Your task to perform on an android device: see sites visited before in the chrome app Image 0: 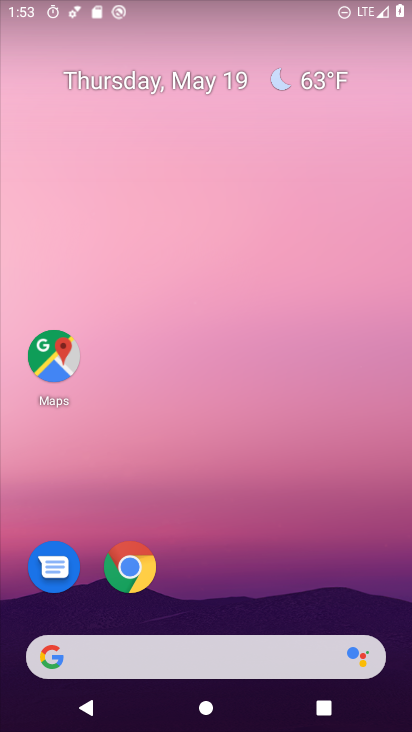
Step 0: press home button
Your task to perform on an android device: see sites visited before in the chrome app Image 1: 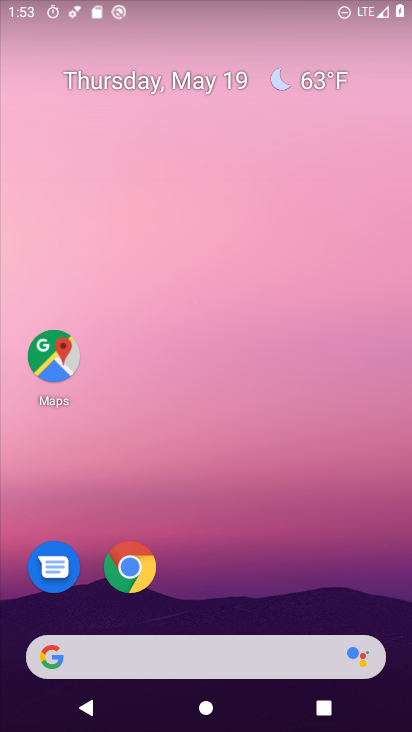
Step 1: click (137, 571)
Your task to perform on an android device: see sites visited before in the chrome app Image 2: 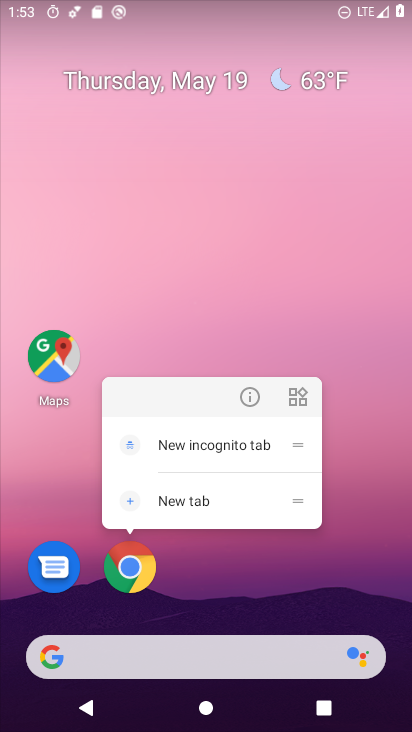
Step 2: click (133, 573)
Your task to perform on an android device: see sites visited before in the chrome app Image 3: 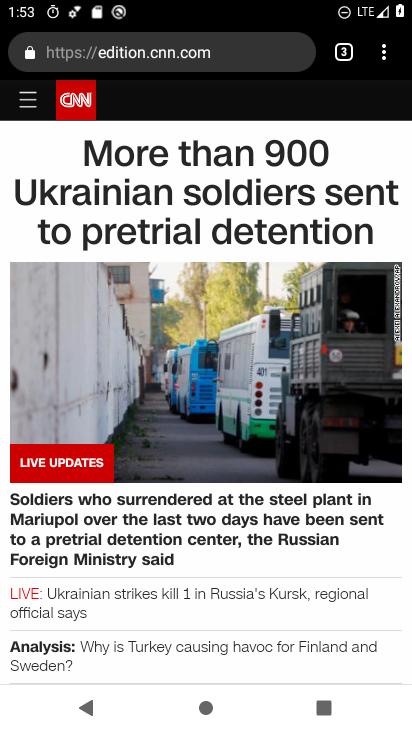
Step 3: task complete